Your task to perform on an android device: Go to accessibility settings Image 0: 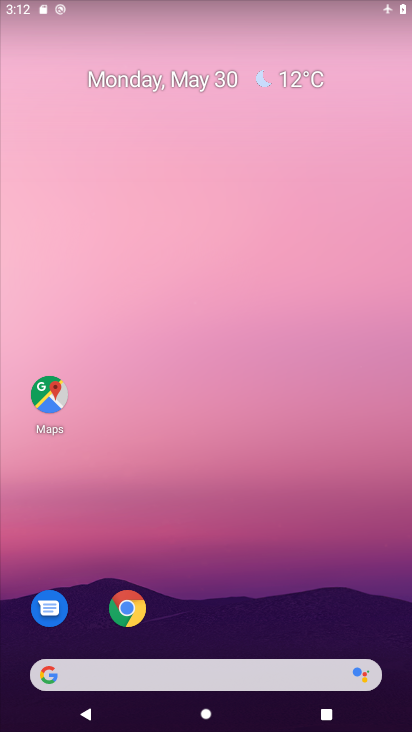
Step 0: drag from (324, 601) to (202, 10)
Your task to perform on an android device: Go to accessibility settings Image 1: 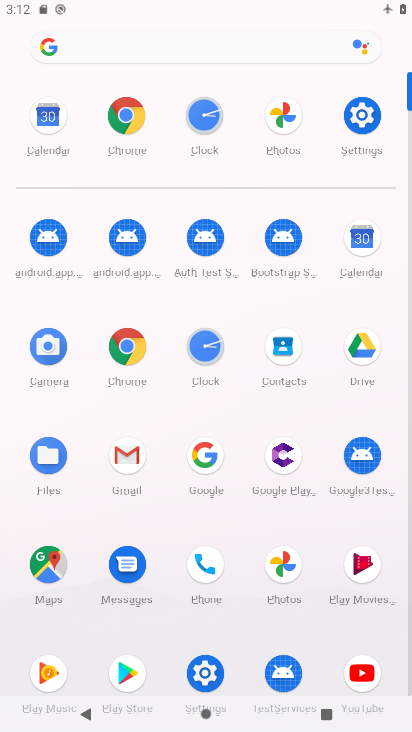
Step 1: click (358, 102)
Your task to perform on an android device: Go to accessibility settings Image 2: 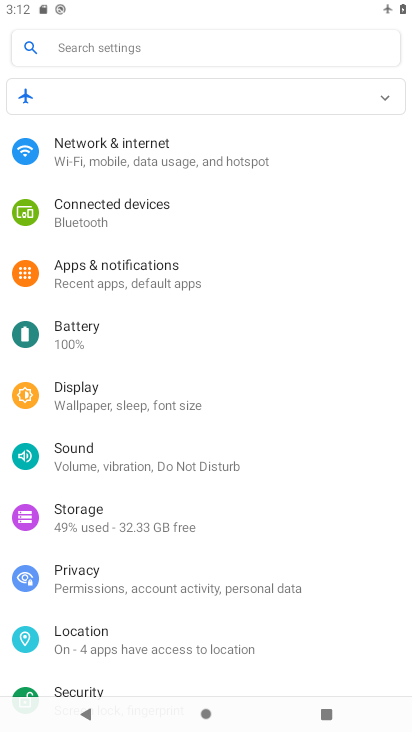
Step 2: drag from (263, 489) to (236, 88)
Your task to perform on an android device: Go to accessibility settings Image 3: 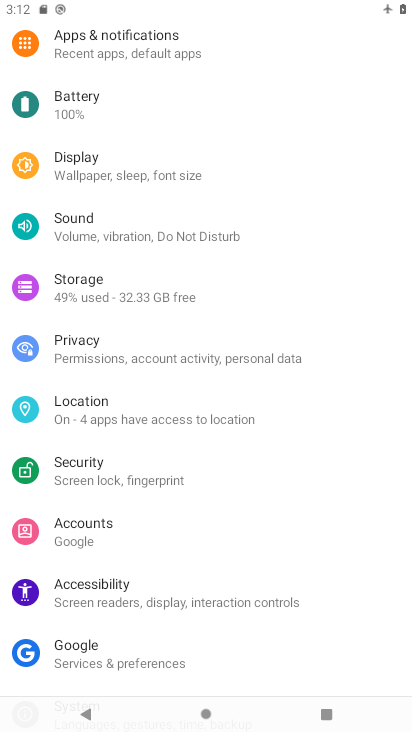
Step 3: click (156, 587)
Your task to perform on an android device: Go to accessibility settings Image 4: 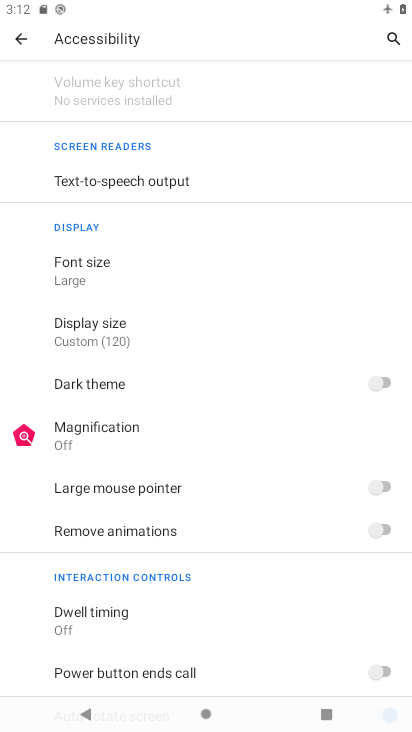
Step 4: task complete